Your task to perform on an android device: Open Android settings Image 0: 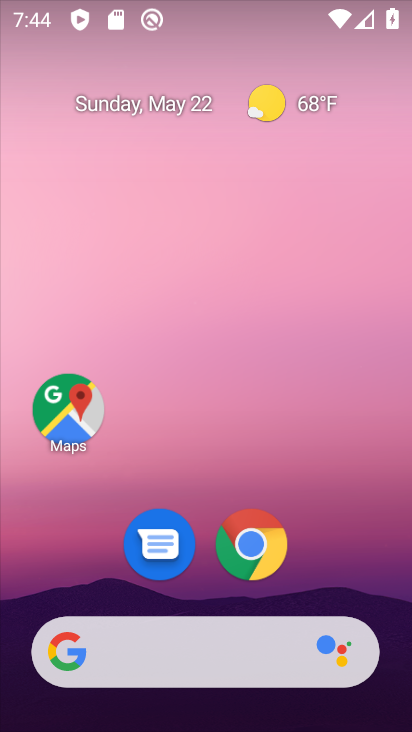
Step 0: drag from (393, 635) to (409, 103)
Your task to perform on an android device: Open Android settings Image 1: 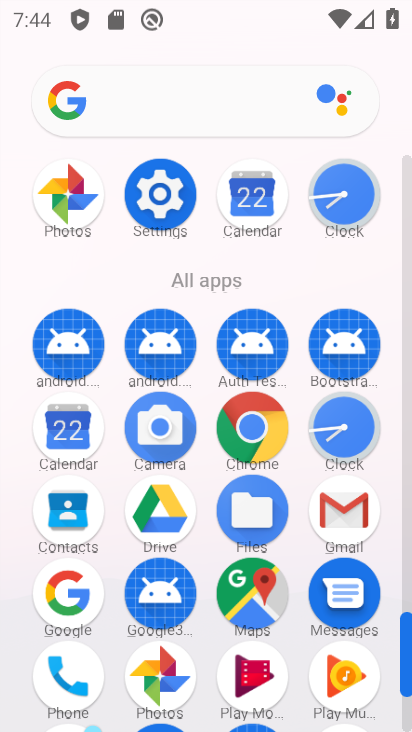
Step 1: click (173, 189)
Your task to perform on an android device: Open Android settings Image 2: 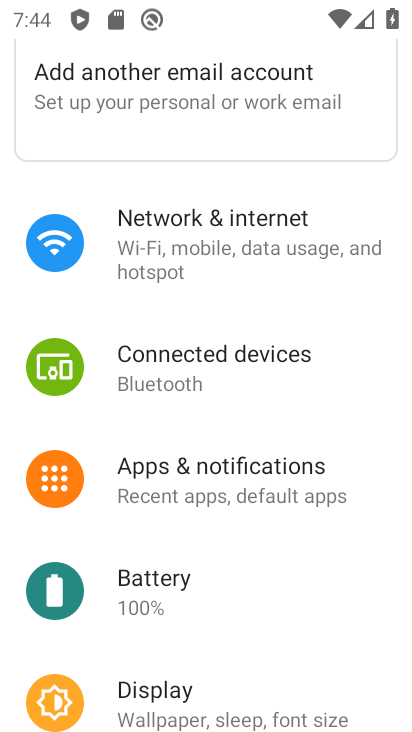
Step 2: task complete